Your task to perform on an android device: Open Chrome and go to settings Image 0: 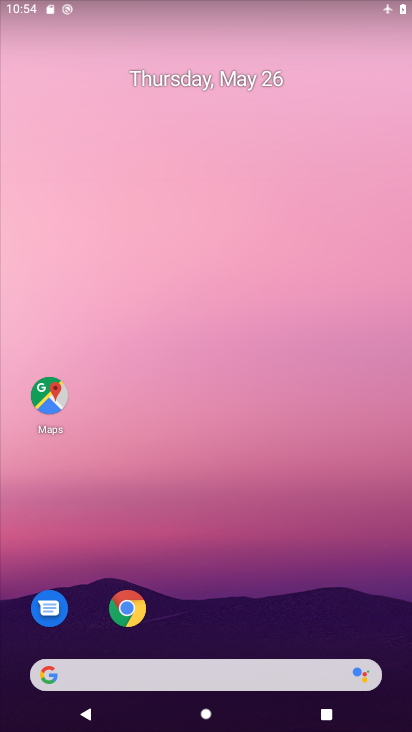
Step 0: click (121, 613)
Your task to perform on an android device: Open Chrome and go to settings Image 1: 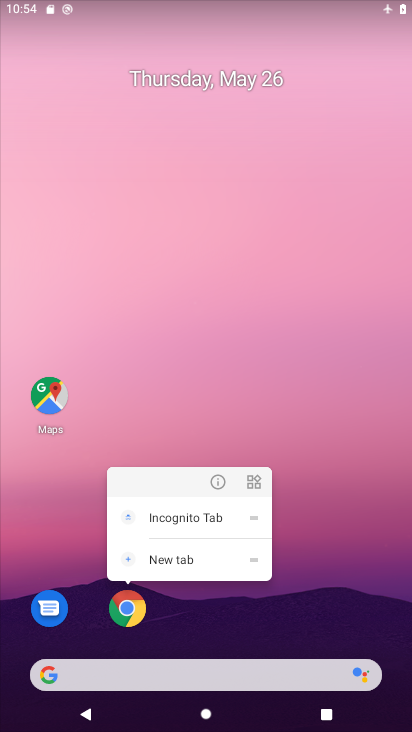
Step 1: click (130, 605)
Your task to perform on an android device: Open Chrome and go to settings Image 2: 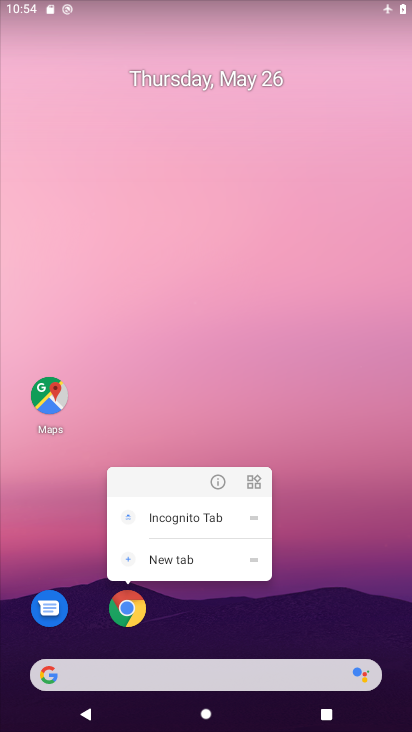
Step 2: click (128, 605)
Your task to perform on an android device: Open Chrome and go to settings Image 3: 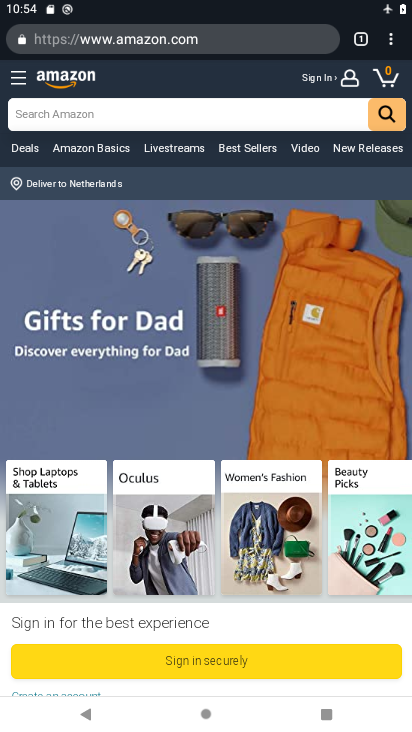
Step 3: click (390, 39)
Your task to perform on an android device: Open Chrome and go to settings Image 4: 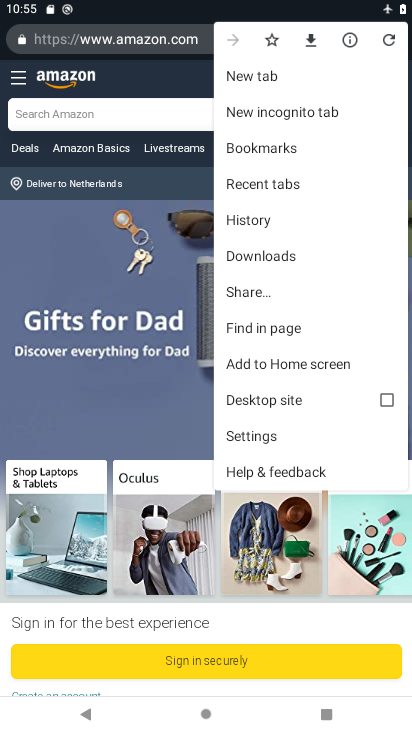
Step 4: click (263, 435)
Your task to perform on an android device: Open Chrome and go to settings Image 5: 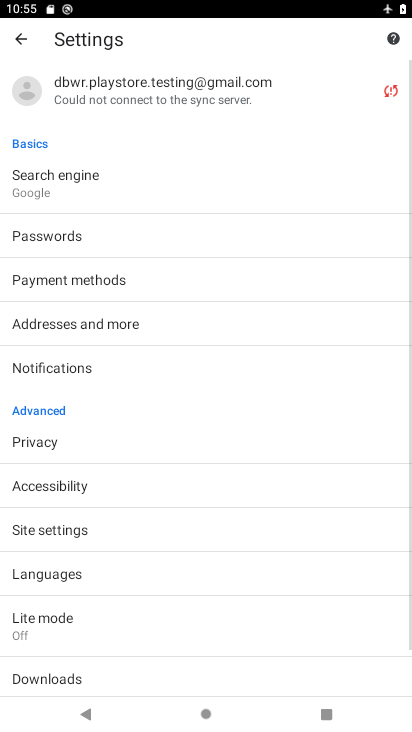
Step 5: task complete